Your task to perform on an android device: Open Chrome and go to the settings page Image 0: 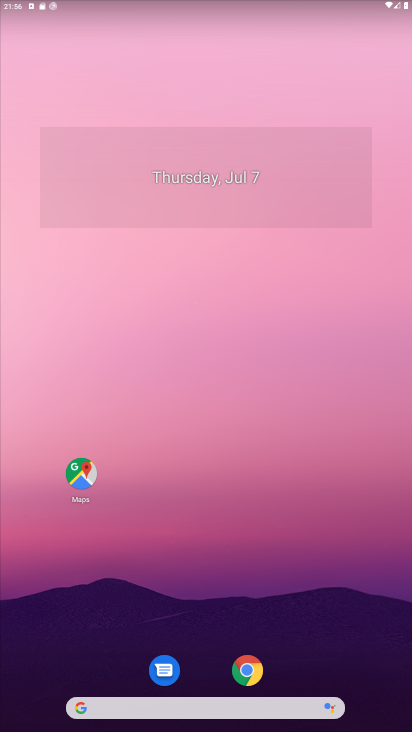
Step 0: task impossible